Your task to perform on an android device: open a new tab in the chrome app Image 0: 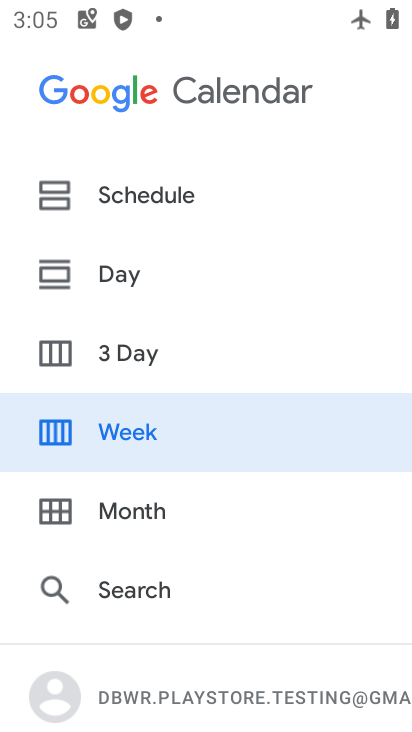
Step 0: press home button
Your task to perform on an android device: open a new tab in the chrome app Image 1: 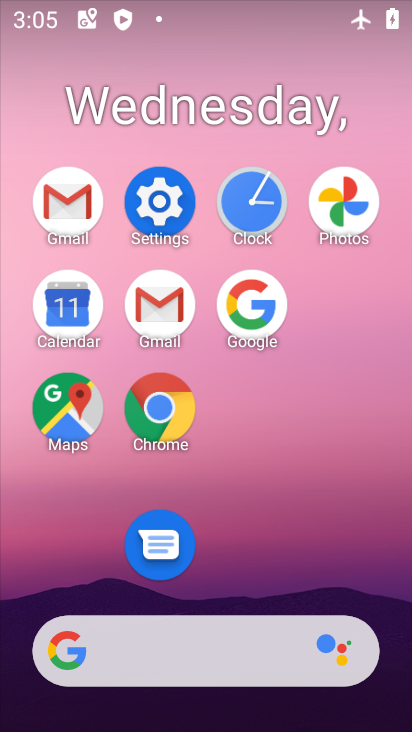
Step 1: click (157, 400)
Your task to perform on an android device: open a new tab in the chrome app Image 2: 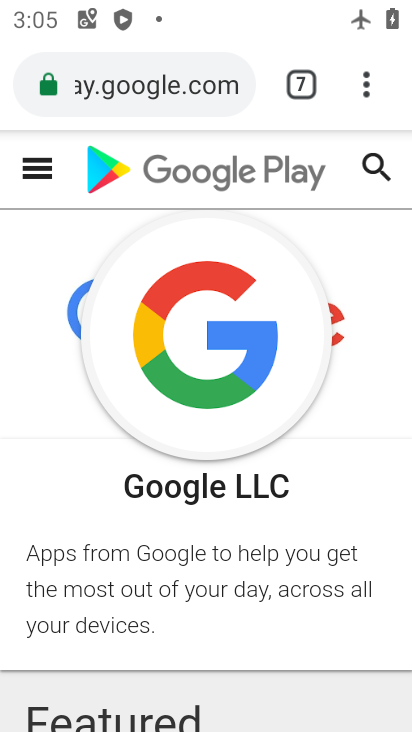
Step 2: click (305, 82)
Your task to perform on an android device: open a new tab in the chrome app Image 3: 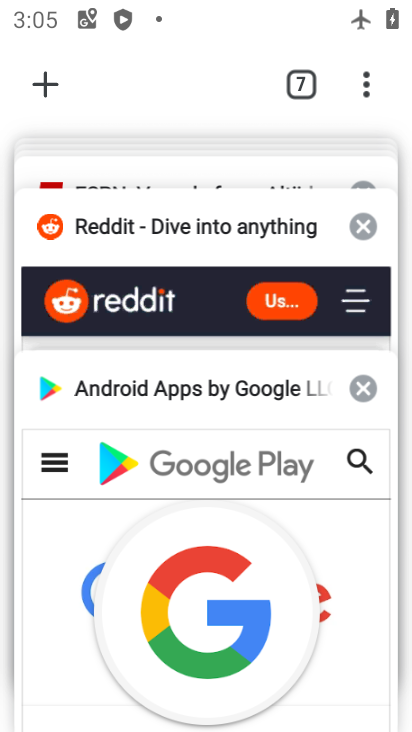
Step 3: click (58, 88)
Your task to perform on an android device: open a new tab in the chrome app Image 4: 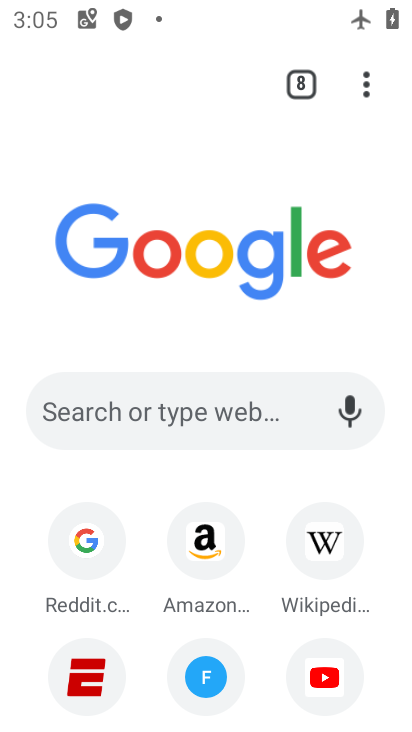
Step 4: task complete